Your task to perform on an android device: toggle notification dots Image 0: 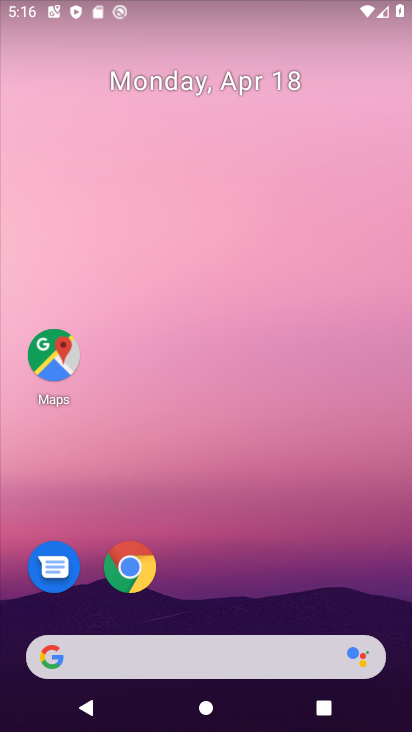
Step 0: drag from (368, 595) to (206, 17)
Your task to perform on an android device: toggle notification dots Image 1: 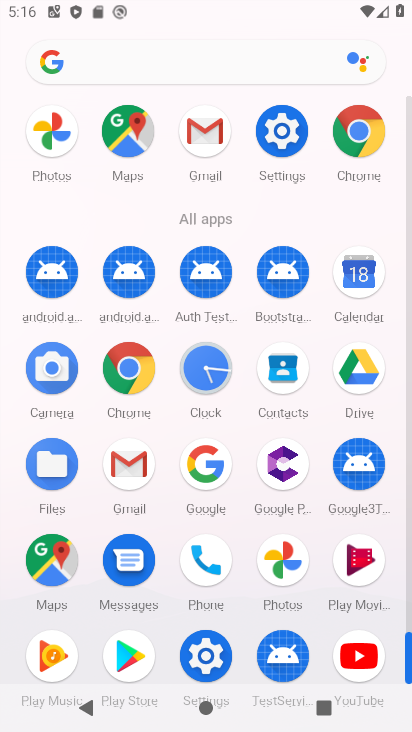
Step 1: drag from (10, 454) to (7, 314)
Your task to perform on an android device: toggle notification dots Image 2: 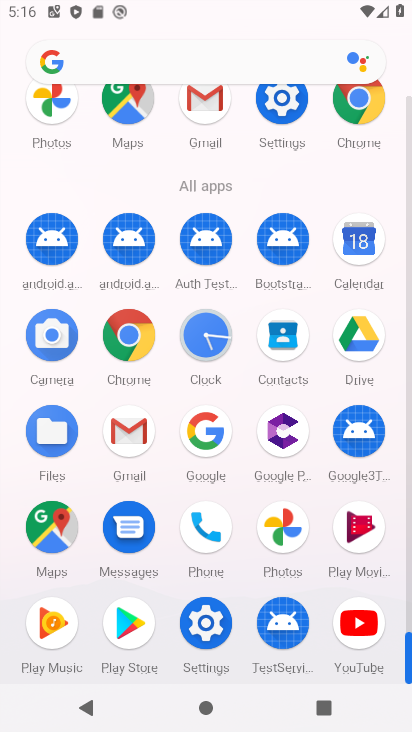
Step 2: click (209, 619)
Your task to perform on an android device: toggle notification dots Image 3: 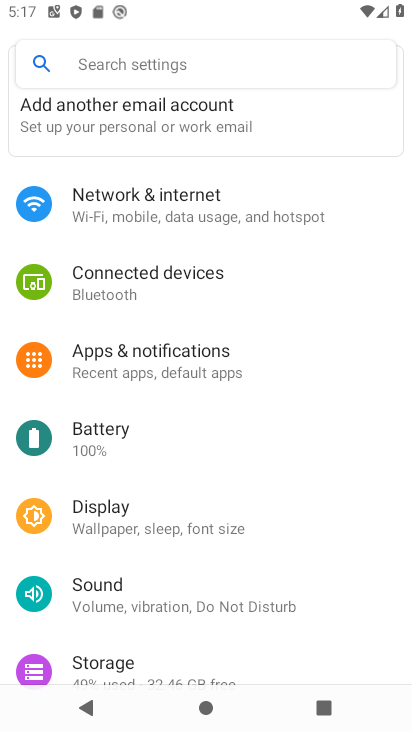
Step 3: click (175, 364)
Your task to perform on an android device: toggle notification dots Image 4: 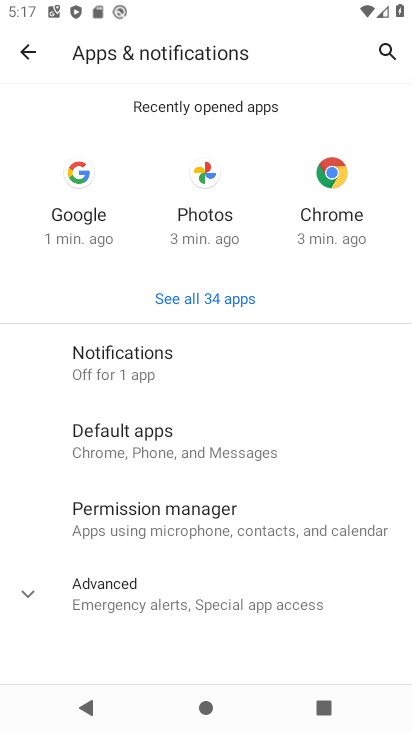
Step 4: click (207, 363)
Your task to perform on an android device: toggle notification dots Image 5: 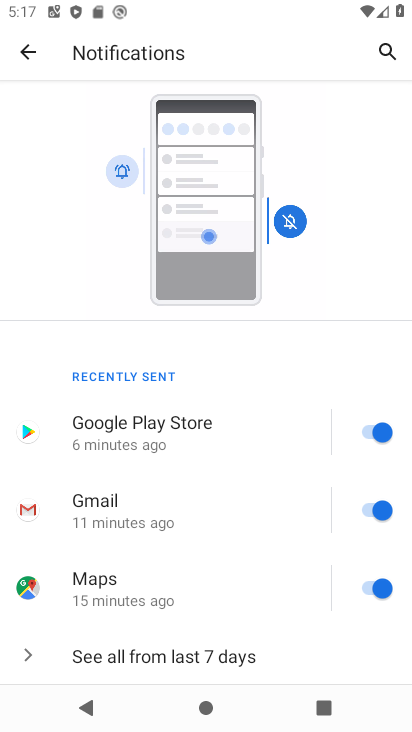
Step 5: drag from (235, 595) to (252, 146)
Your task to perform on an android device: toggle notification dots Image 6: 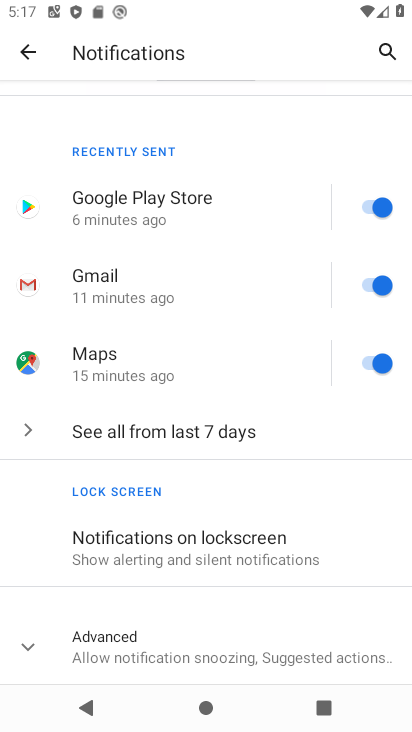
Step 6: click (185, 640)
Your task to perform on an android device: toggle notification dots Image 7: 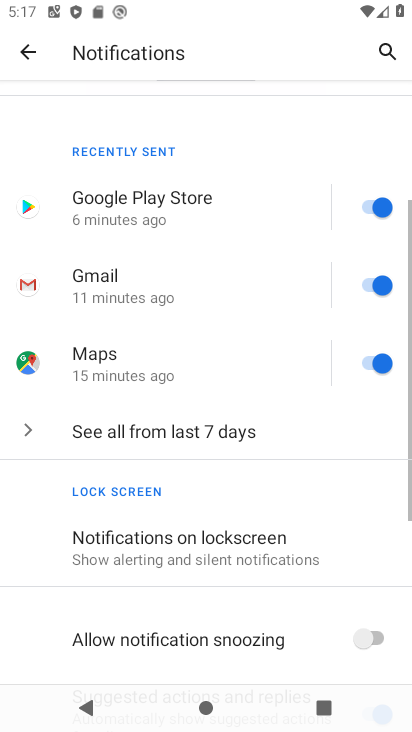
Step 7: drag from (213, 522) to (222, 158)
Your task to perform on an android device: toggle notification dots Image 8: 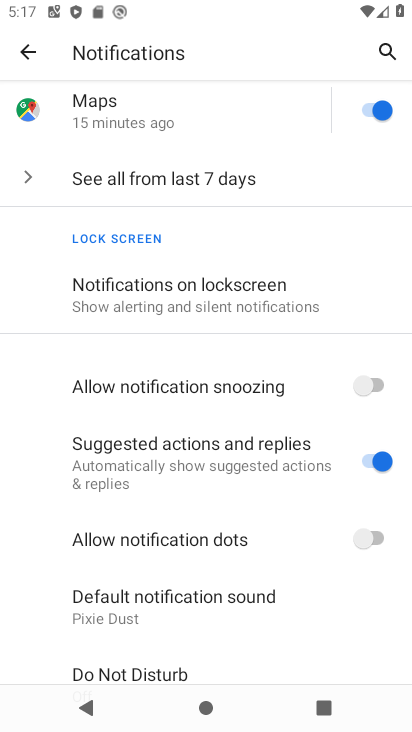
Step 8: drag from (201, 592) to (197, 300)
Your task to perform on an android device: toggle notification dots Image 9: 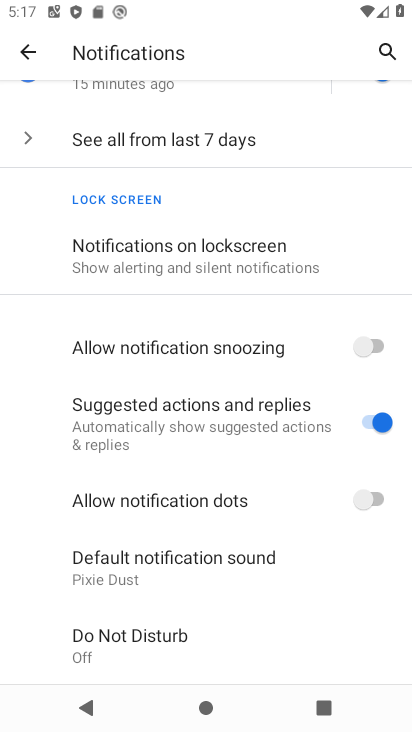
Step 9: click (364, 497)
Your task to perform on an android device: toggle notification dots Image 10: 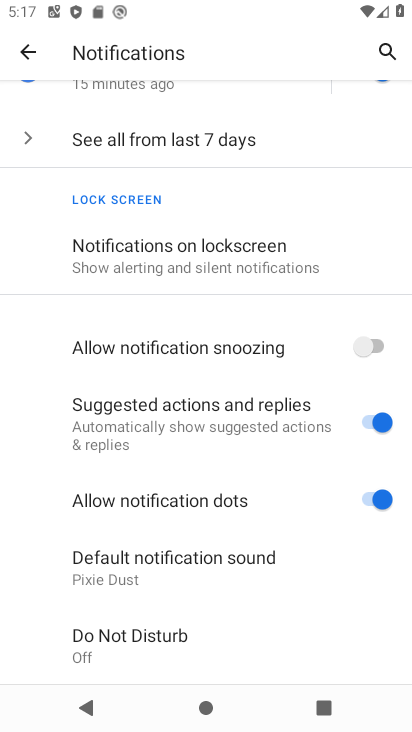
Step 10: task complete